Your task to perform on an android device: delete a single message in the gmail app Image 0: 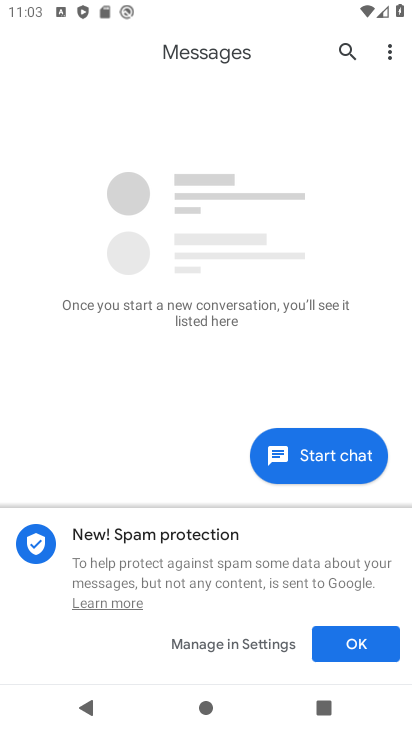
Step 0: press home button
Your task to perform on an android device: delete a single message in the gmail app Image 1: 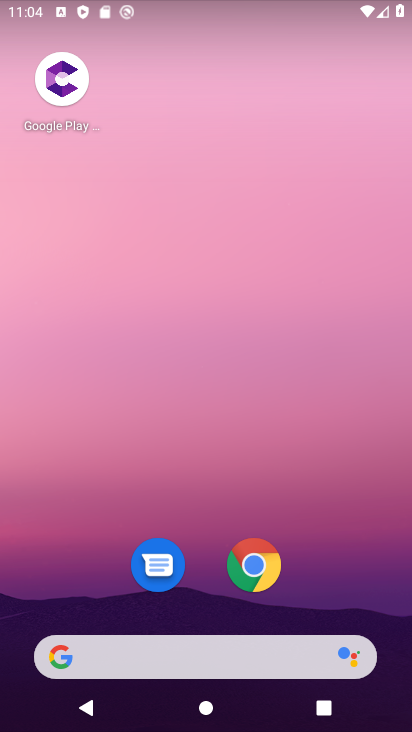
Step 1: drag from (196, 662) to (164, 331)
Your task to perform on an android device: delete a single message in the gmail app Image 2: 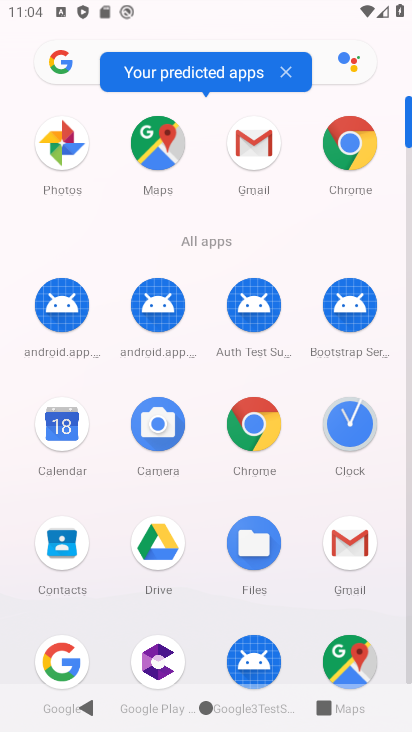
Step 2: click (354, 536)
Your task to perform on an android device: delete a single message in the gmail app Image 3: 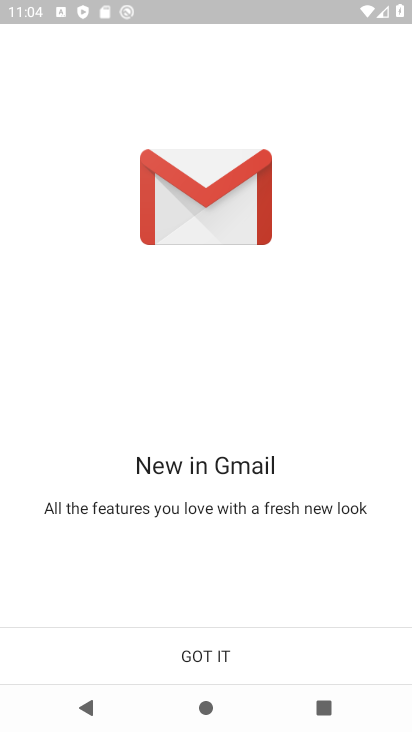
Step 3: click (169, 655)
Your task to perform on an android device: delete a single message in the gmail app Image 4: 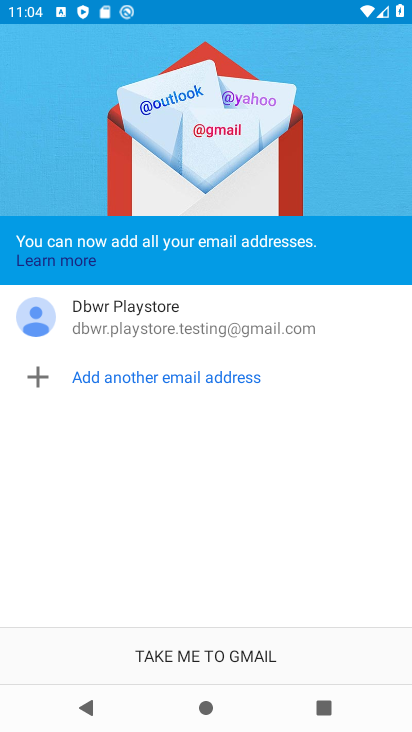
Step 4: click (174, 656)
Your task to perform on an android device: delete a single message in the gmail app Image 5: 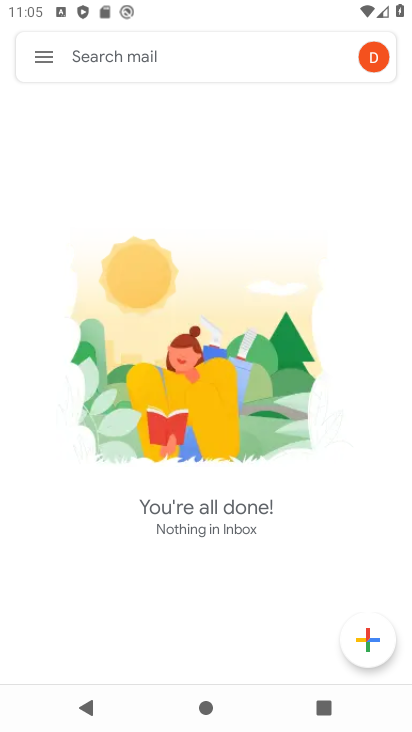
Step 5: click (38, 64)
Your task to perform on an android device: delete a single message in the gmail app Image 6: 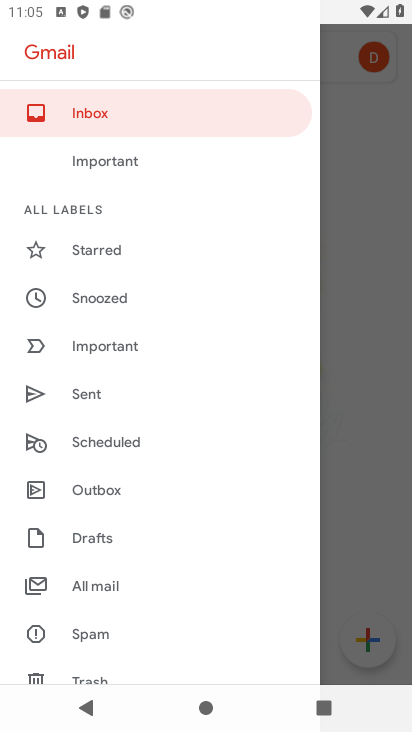
Step 6: click (89, 591)
Your task to perform on an android device: delete a single message in the gmail app Image 7: 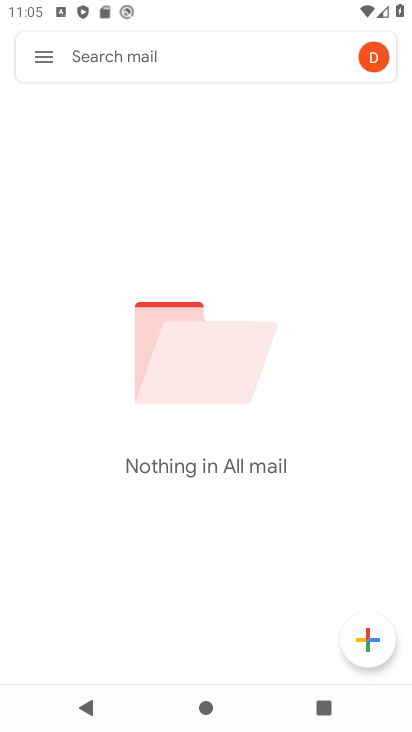
Step 7: task complete